Your task to perform on an android device: change keyboard looks Image 0: 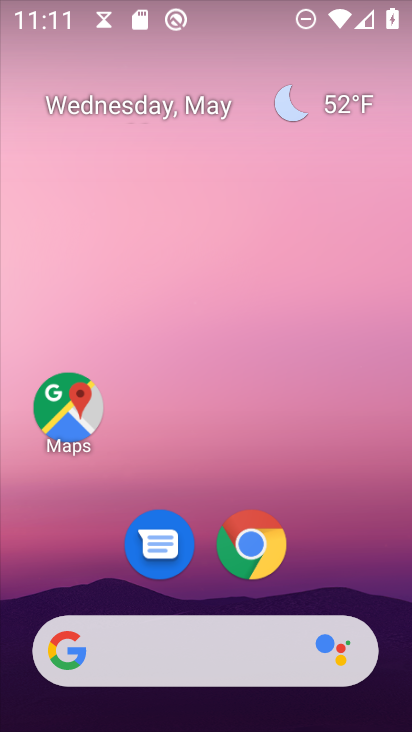
Step 0: drag from (244, 365) to (233, 254)
Your task to perform on an android device: change keyboard looks Image 1: 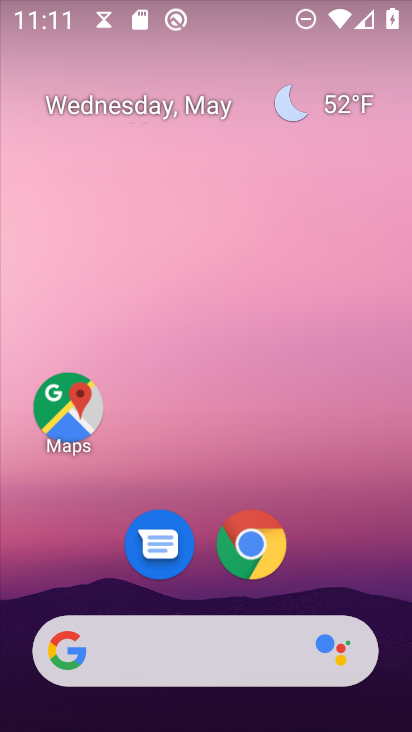
Step 1: drag from (206, 614) to (182, 92)
Your task to perform on an android device: change keyboard looks Image 2: 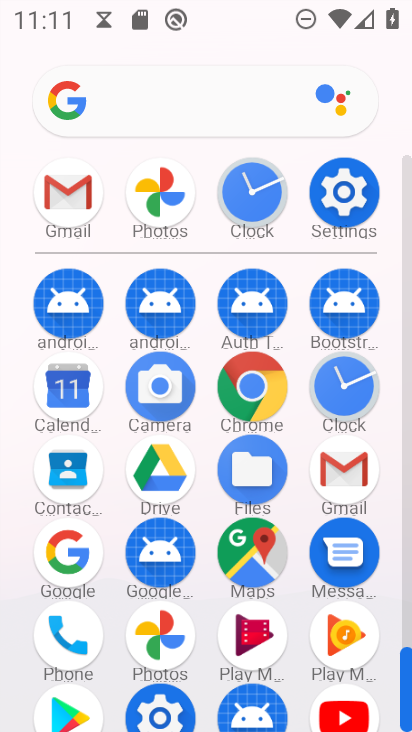
Step 2: click (363, 176)
Your task to perform on an android device: change keyboard looks Image 3: 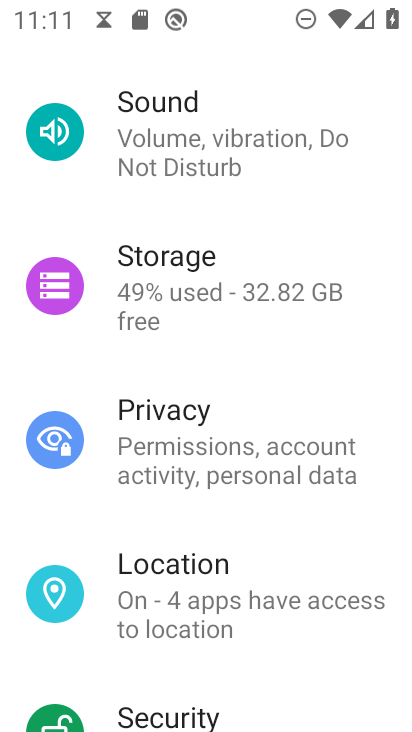
Step 3: drag from (255, 556) to (320, 130)
Your task to perform on an android device: change keyboard looks Image 4: 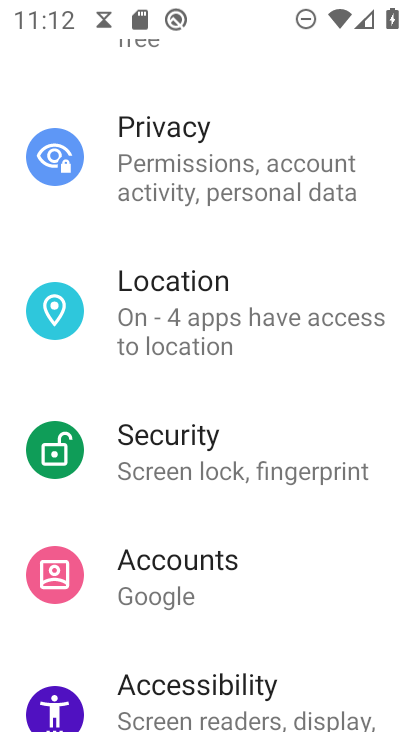
Step 4: drag from (223, 631) to (234, 177)
Your task to perform on an android device: change keyboard looks Image 5: 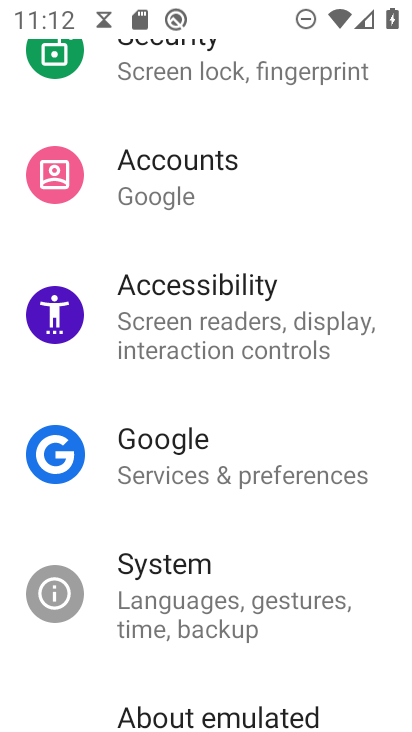
Step 5: drag from (153, 565) to (197, 204)
Your task to perform on an android device: change keyboard looks Image 6: 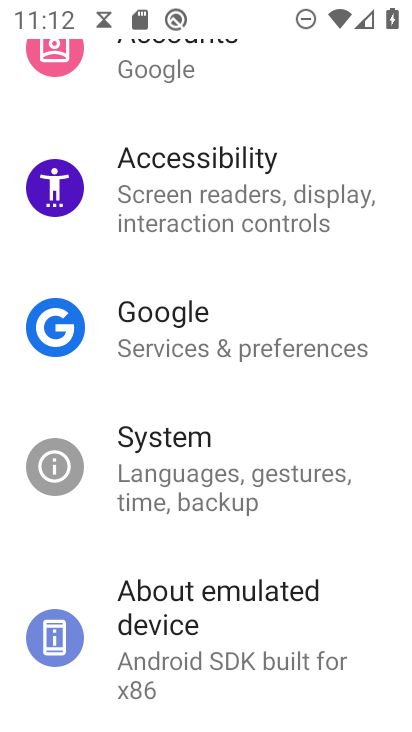
Step 6: drag from (238, 90) to (274, 657)
Your task to perform on an android device: change keyboard looks Image 7: 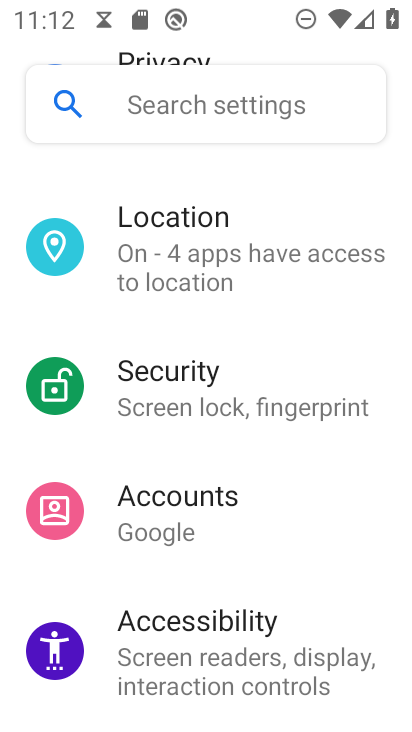
Step 7: drag from (253, 164) to (246, 603)
Your task to perform on an android device: change keyboard looks Image 8: 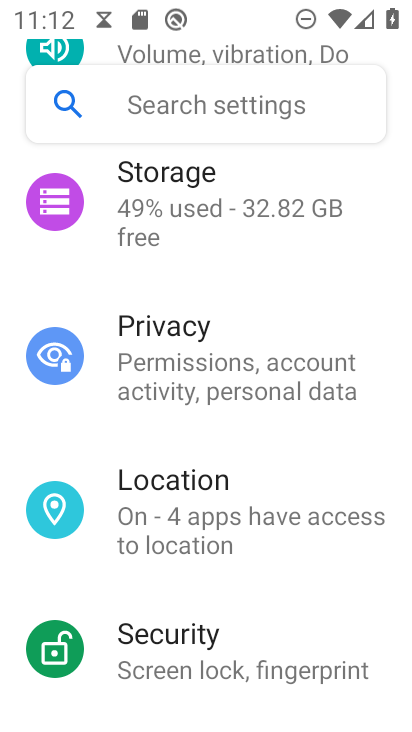
Step 8: drag from (210, 281) to (234, 643)
Your task to perform on an android device: change keyboard looks Image 9: 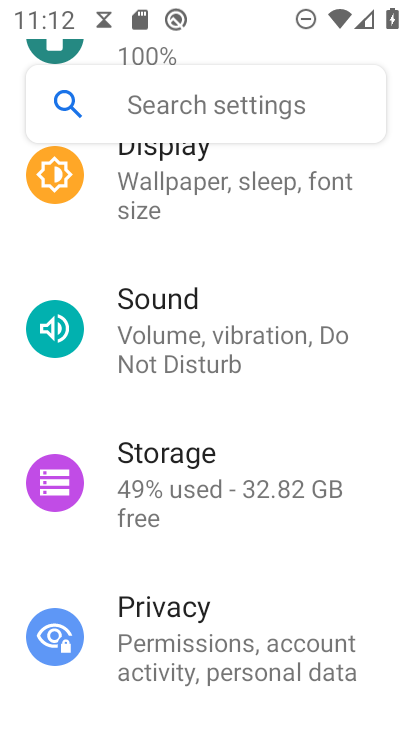
Step 9: drag from (209, 258) to (231, 646)
Your task to perform on an android device: change keyboard looks Image 10: 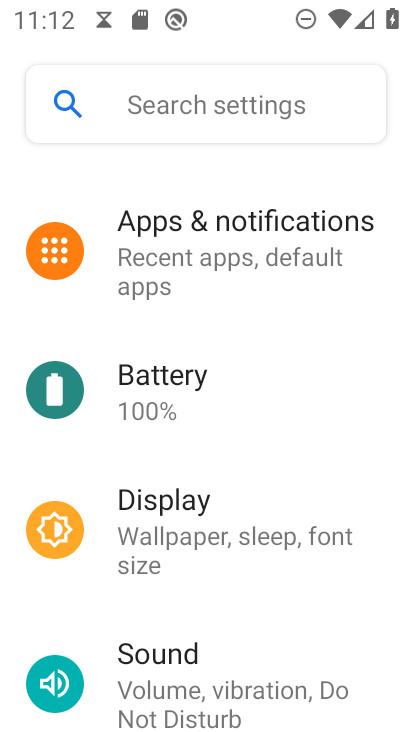
Step 10: drag from (127, 575) to (229, 0)
Your task to perform on an android device: change keyboard looks Image 11: 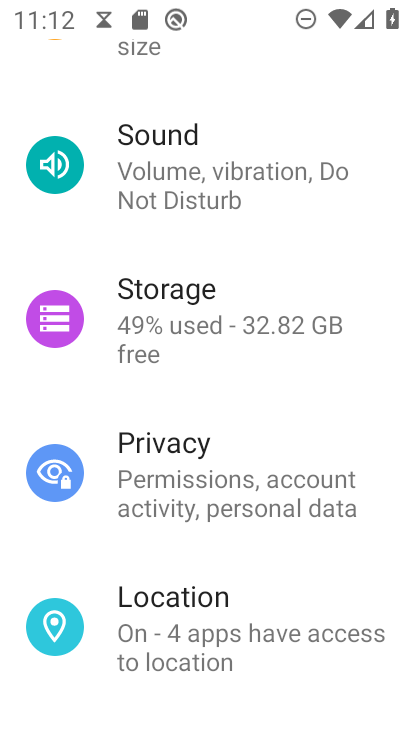
Step 11: drag from (157, 519) to (198, 54)
Your task to perform on an android device: change keyboard looks Image 12: 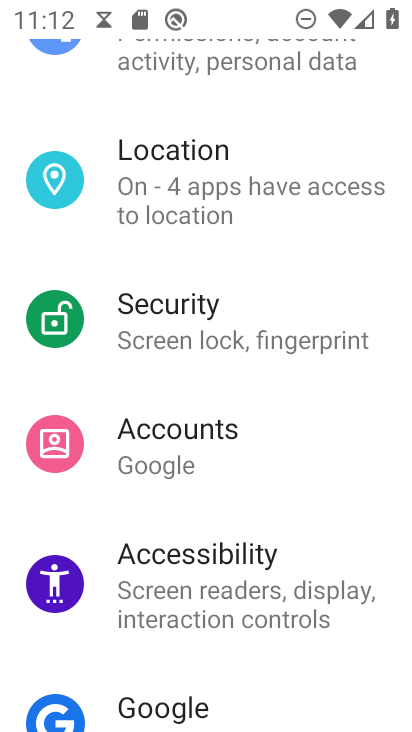
Step 12: drag from (142, 617) to (261, 145)
Your task to perform on an android device: change keyboard looks Image 13: 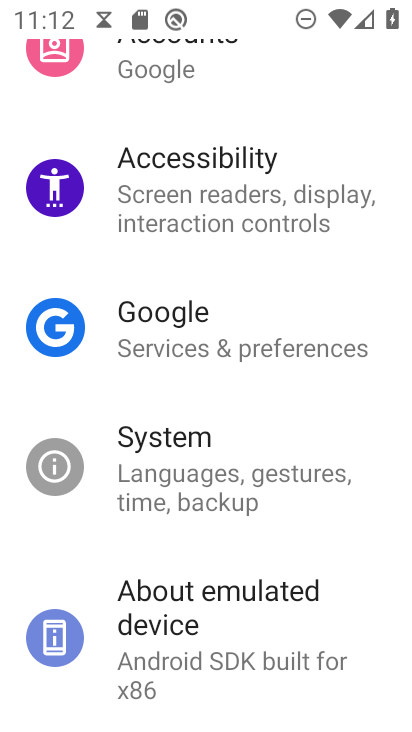
Step 13: drag from (151, 557) to (222, 37)
Your task to perform on an android device: change keyboard looks Image 14: 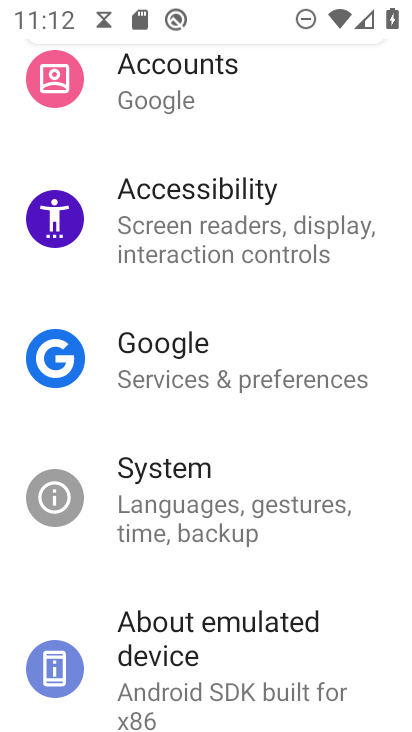
Step 14: click (271, 491)
Your task to perform on an android device: change keyboard looks Image 15: 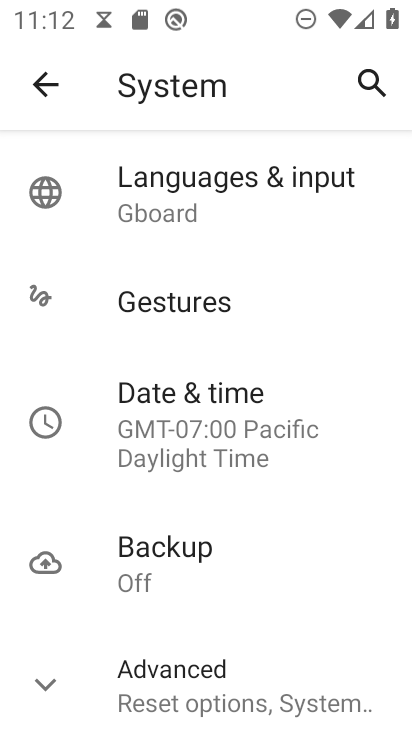
Step 15: click (194, 210)
Your task to perform on an android device: change keyboard looks Image 16: 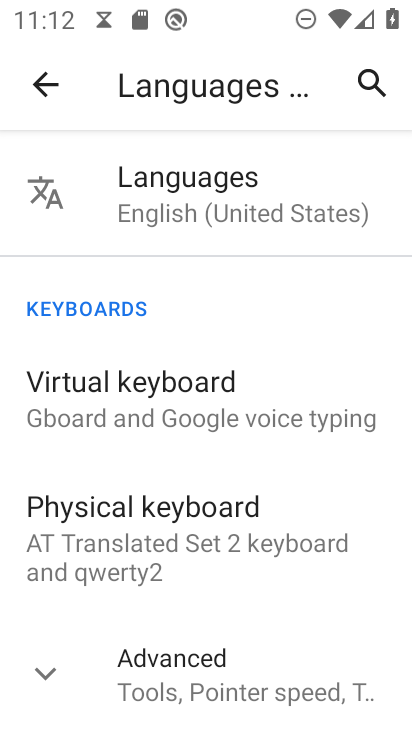
Step 16: click (205, 170)
Your task to perform on an android device: change keyboard looks Image 17: 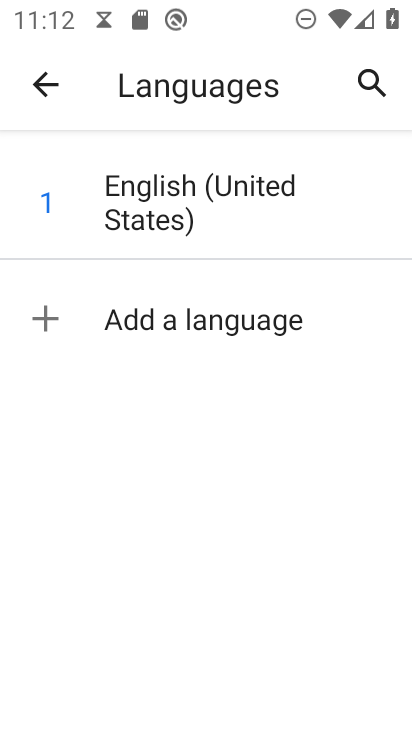
Step 17: click (60, 121)
Your task to perform on an android device: change keyboard looks Image 18: 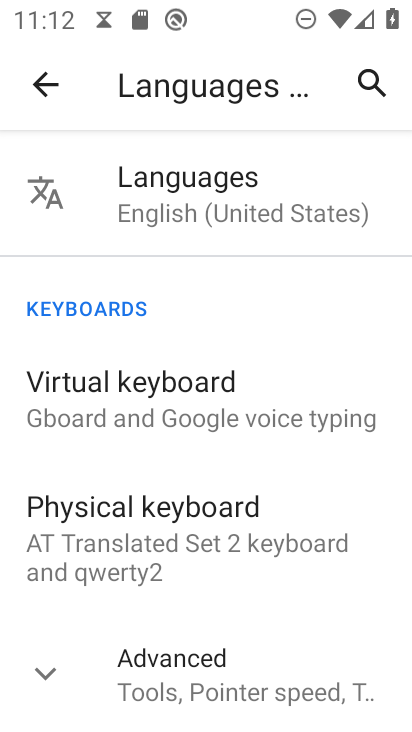
Step 18: drag from (159, 554) to (265, 111)
Your task to perform on an android device: change keyboard looks Image 19: 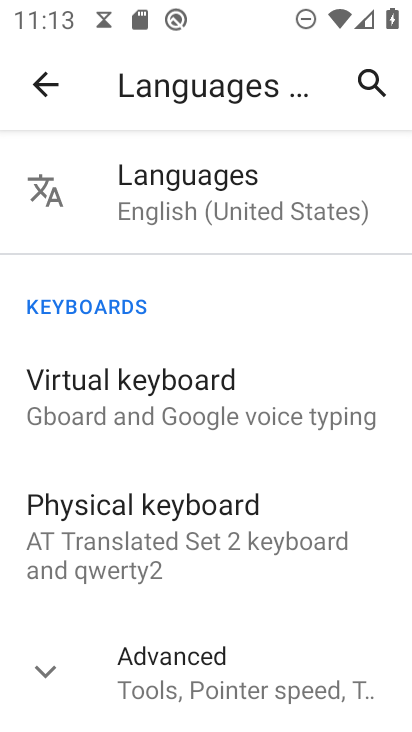
Step 19: click (116, 406)
Your task to perform on an android device: change keyboard looks Image 20: 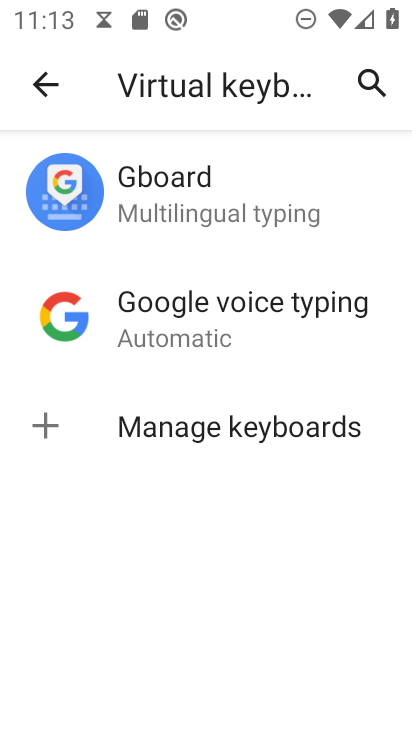
Step 20: click (176, 197)
Your task to perform on an android device: change keyboard looks Image 21: 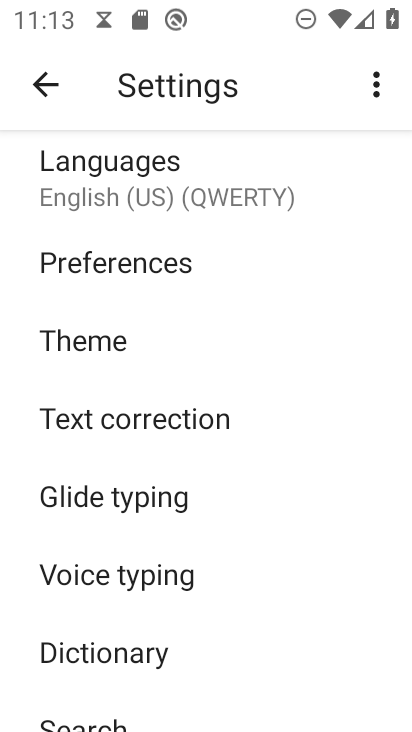
Step 21: click (83, 338)
Your task to perform on an android device: change keyboard looks Image 22: 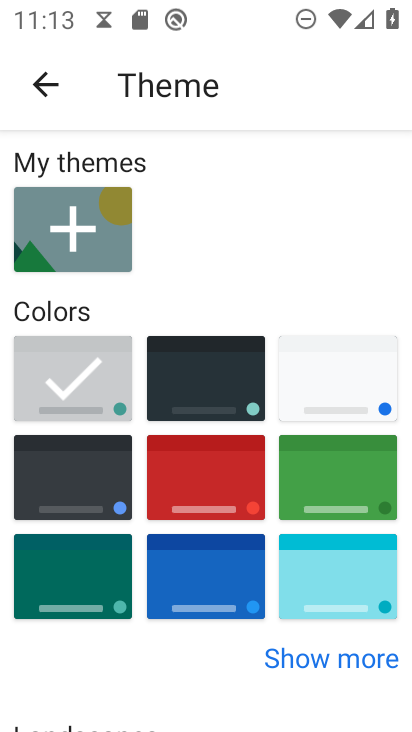
Step 22: click (344, 462)
Your task to perform on an android device: change keyboard looks Image 23: 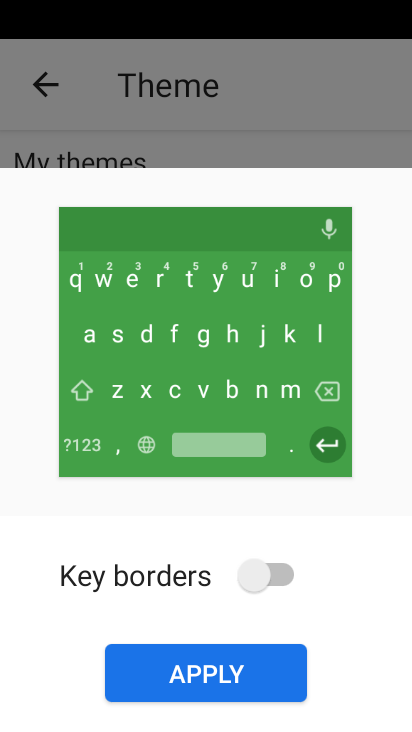
Step 23: click (275, 576)
Your task to perform on an android device: change keyboard looks Image 24: 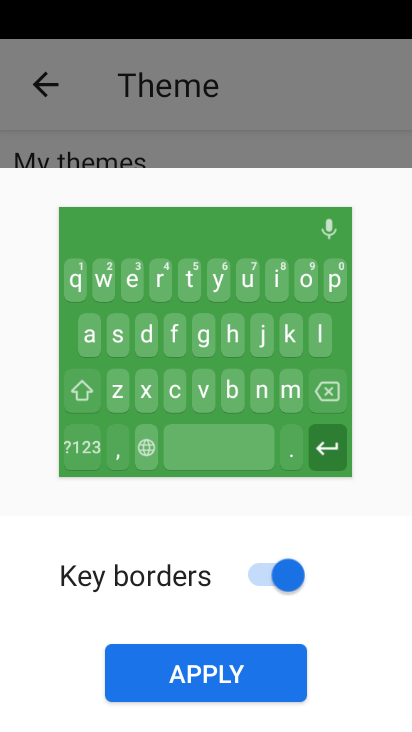
Step 24: click (145, 690)
Your task to perform on an android device: change keyboard looks Image 25: 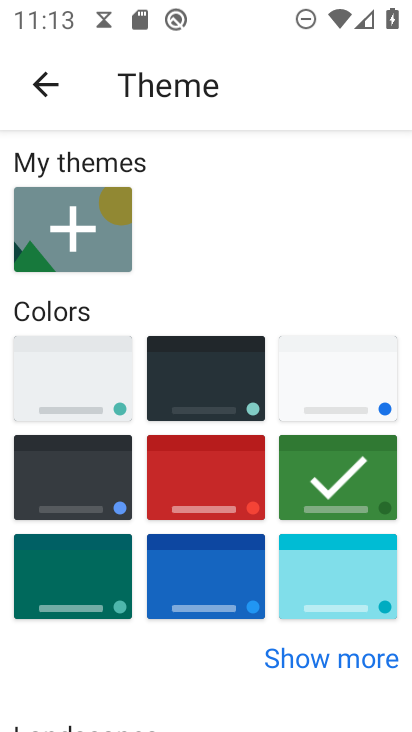
Step 25: task complete